Your task to perform on an android device: Open Youtube and go to "Your channel" Image 0: 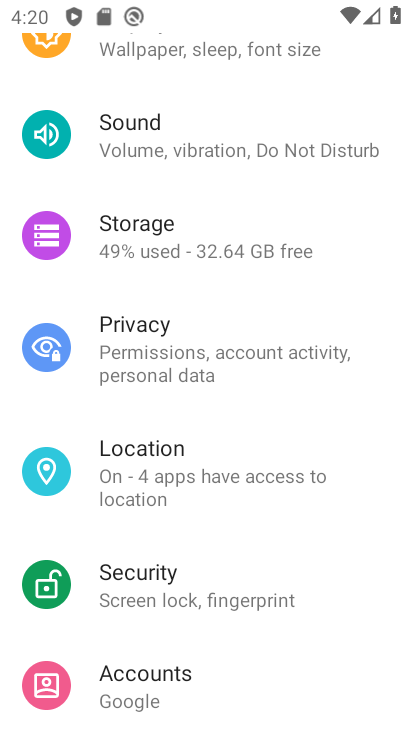
Step 0: press back button
Your task to perform on an android device: Open Youtube and go to "Your channel" Image 1: 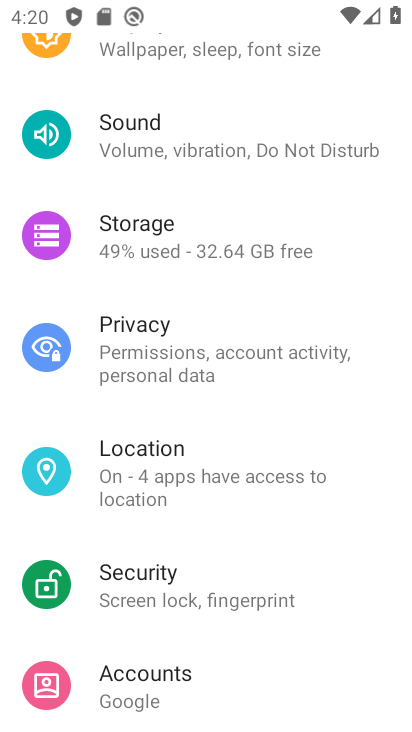
Step 1: press back button
Your task to perform on an android device: Open Youtube and go to "Your channel" Image 2: 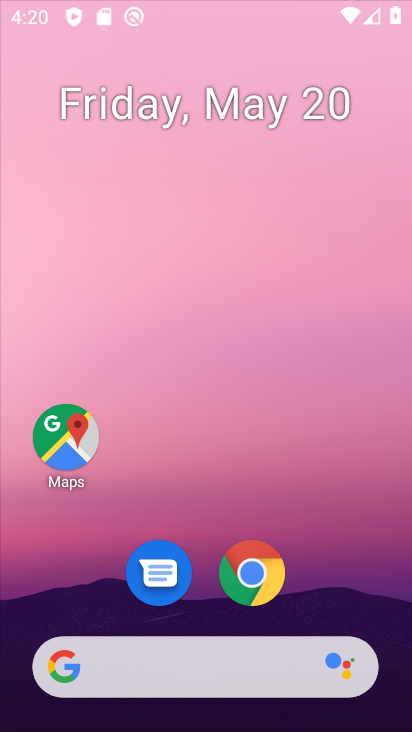
Step 2: press back button
Your task to perform on an android device: Open Youtube and go to "Your channel" Image 3: 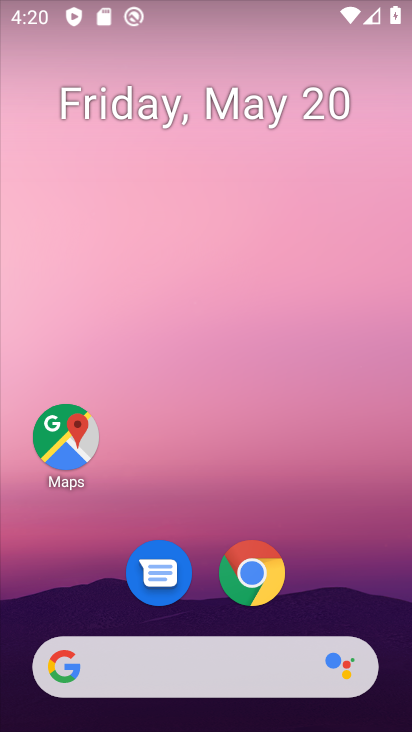
Step 3: drag from (322, 634) to (143, 62)
Your task to perform on an android device: Open Youtube and go to "Your channel" Image 4: 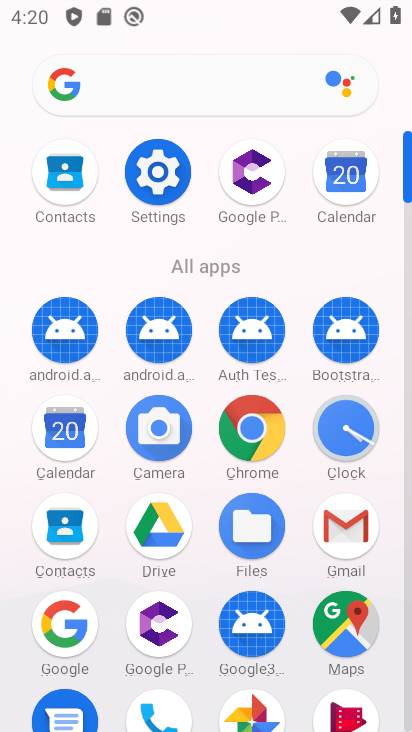
Step 4: drag from (261, 487) to (224, 213)
Your task to perform on an android device: Open Youtube and go to "Your channel" Image 5: 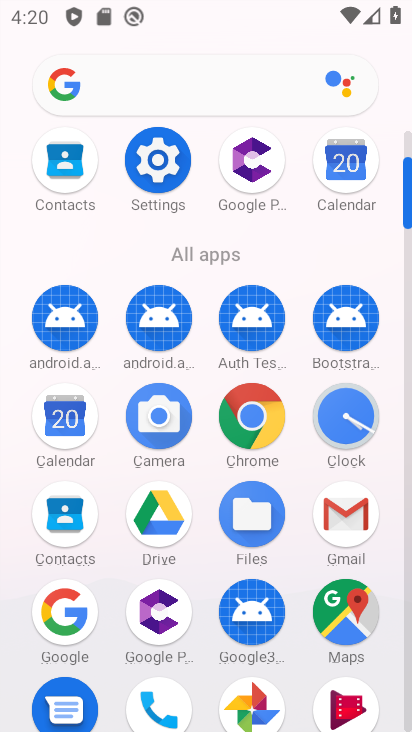
Step 5: drag from (274, 347) to (263, 195)
Your task to perform on an android device: Open Youtube and go to "Your channel" Image 6: 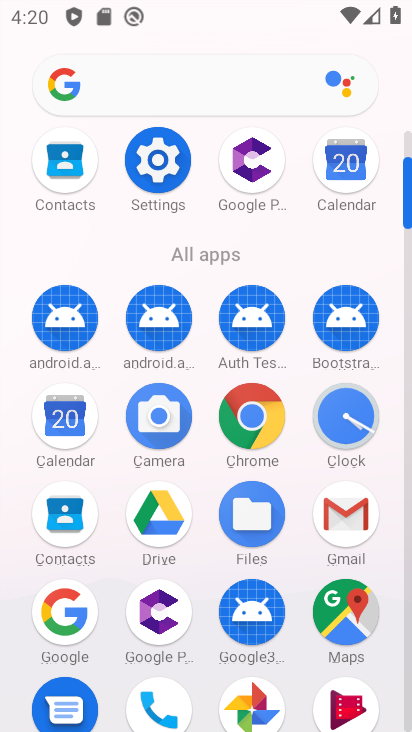
Step 6: drag from (268, 560) to (206, 175)
Your task to perform on an android device: Open Youtube and go to "Your channel" Image 7: 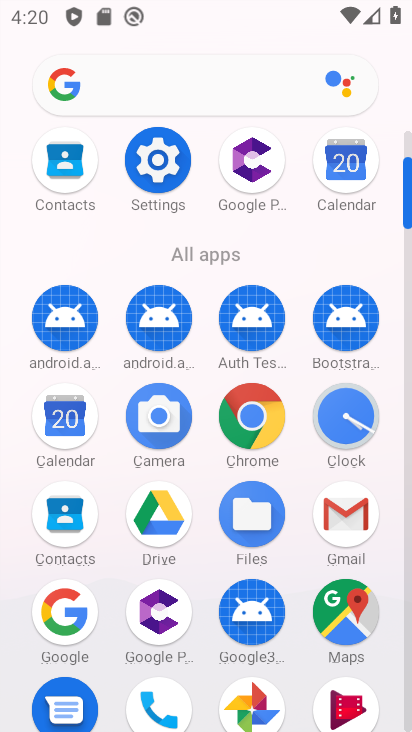
Step 7: drag from (292, 530) to (245, 154)
Your task to perform on an android device: Open Youtube and go to "Your channel" Image 8: 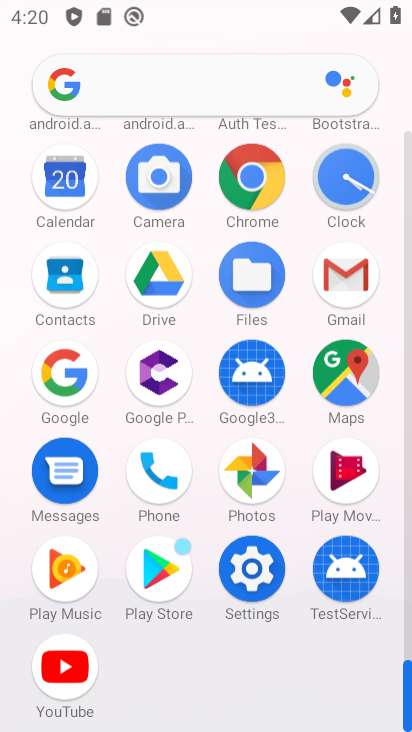
Step 8: drag from (289, 561) to (276, 206)
Your task to perform on an android device: Open Youtube and go to "Your channel" Image 9: 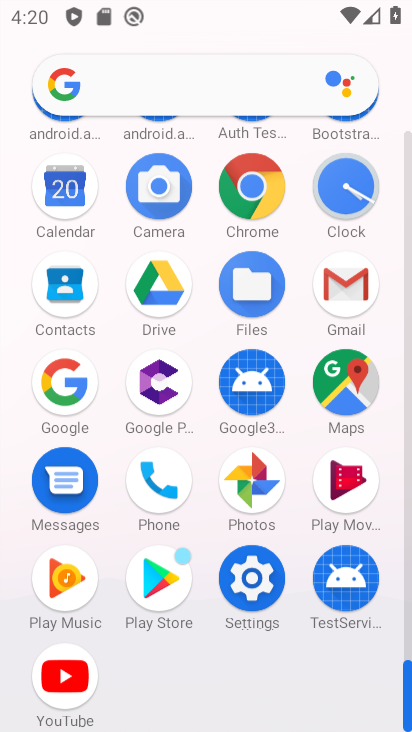
Step 9: drag from (222, 534) to (192, 297)
Your task to perform on an android device: Open Youtube and go to "Your channel" Image 10: 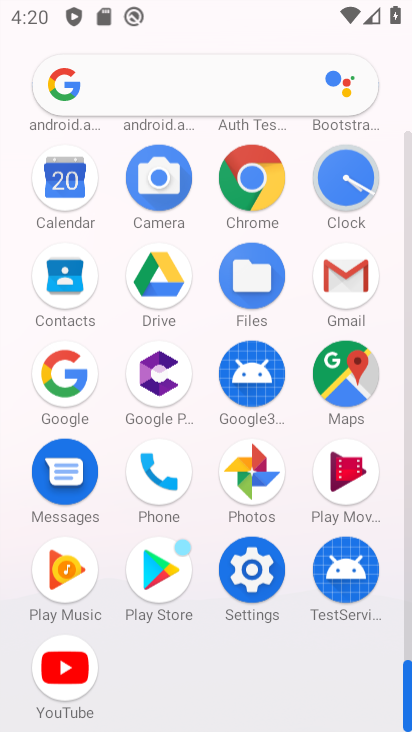
Step 10: drag from (289, 622) to (256, 247)
Your task to perform on an android device: Open Youtube and go to "Your channel" Image 11: 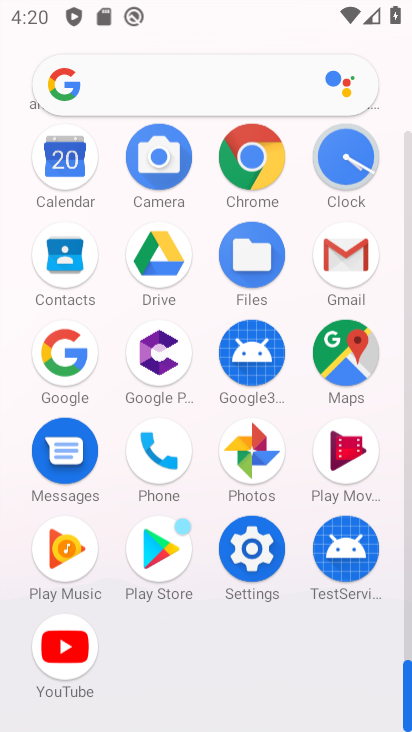
Step 11: drag from (325, 612) to (287, 233)
Your task to perform on an android device: Open Youtube and go to "Your channel" Image 12: 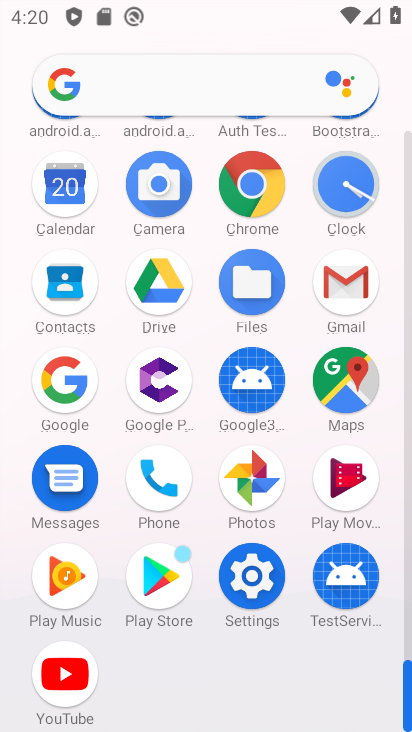
Step 12: click (60, 683)
Your task to perform on an android device: Open Youtube and go to "Your channel" Image 13: 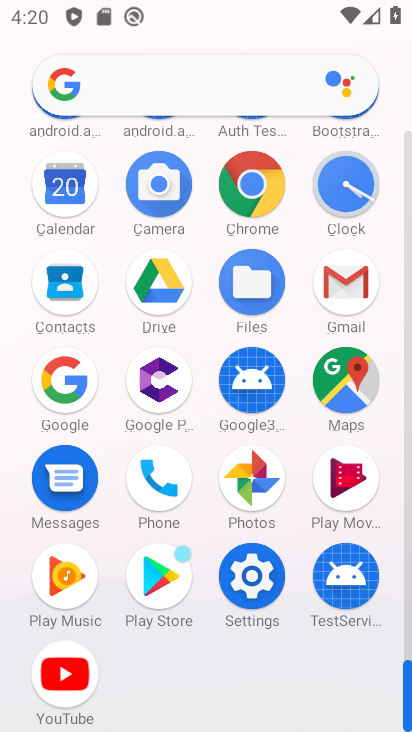
Step 13: click (61, 682)
Your task to perform on an android device: Open Youtube and go to "Your channel" Image 14: 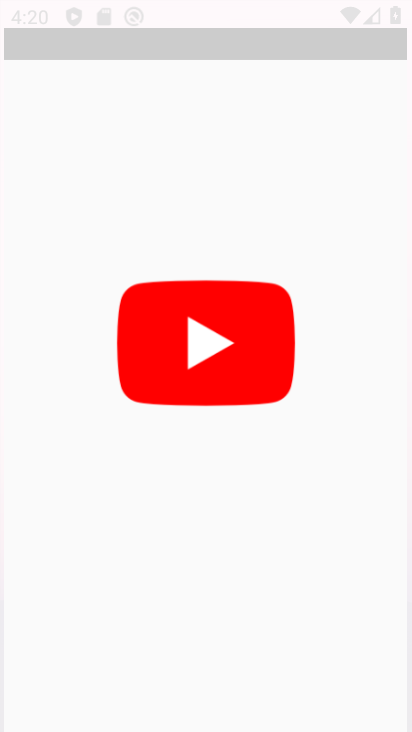
Step 14: click (61, 682)
Your task to perform on an android device: Open Youtube and go to "Your channel" Image 15: 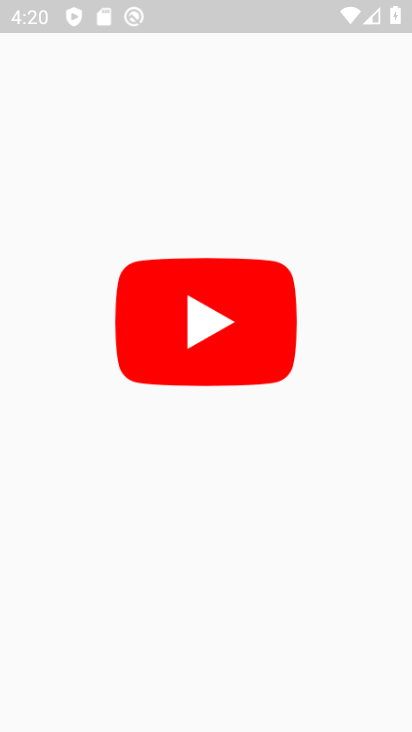
Step 15: click (68, 673)
Your task to perform on an android device: Open Youtube and go to "Your channel" Image 16: 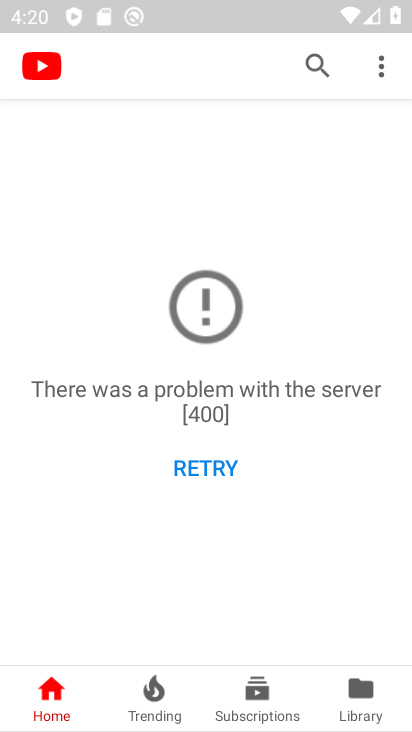
Step 16: task complete